Your task to perform on an android device: turn off location Image 0: 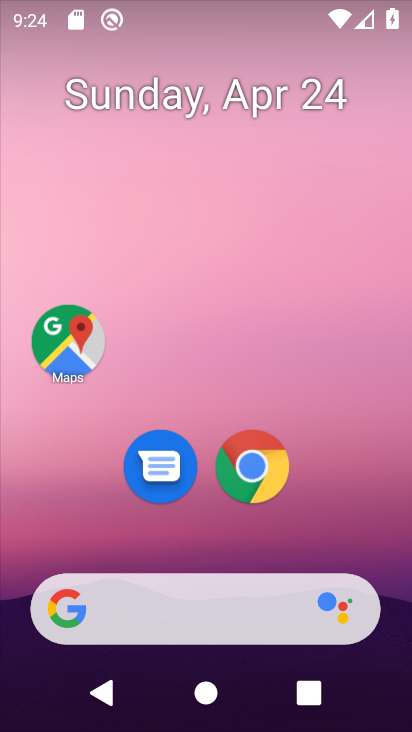
Step 0: drag from (361, 504) to (272, 23)
Your task to perform on an android device: turn off location Image 1: 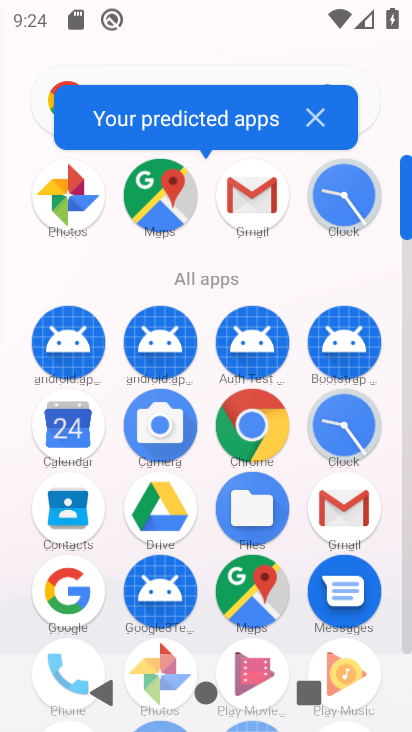
Step 1: drag from (207, 271) to (211, 3)
Your task to perform on an android device: turn off location Image 2: 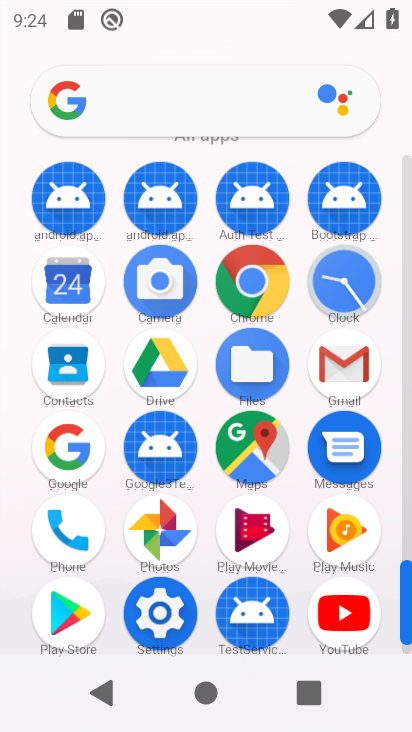
Step 2: click (177, 628)
Your task to perform on an android device: turn off location Image 3: 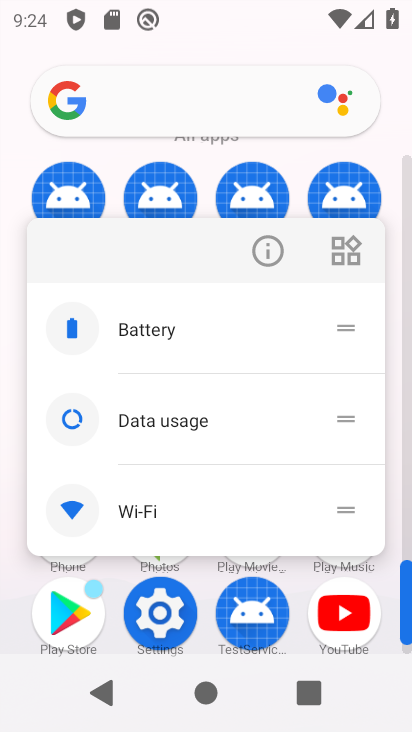
Step 3: click (188, 634)
Your task to perform on an android device: turn off location Image 4: 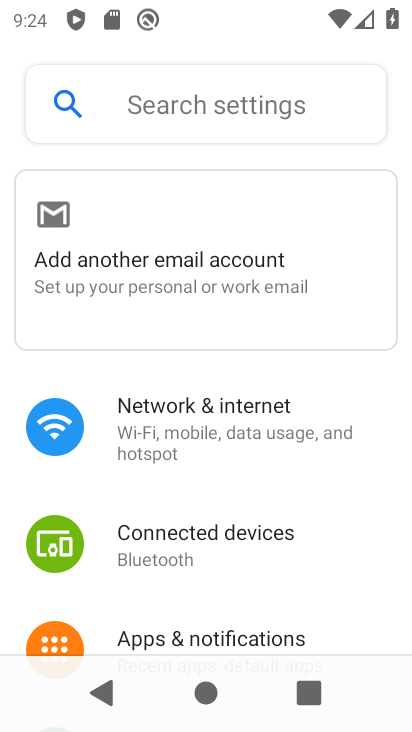
Step 4: drag from (298, 578) to (257, 172)
Your task to perform on an android device: turn off location Image 5: 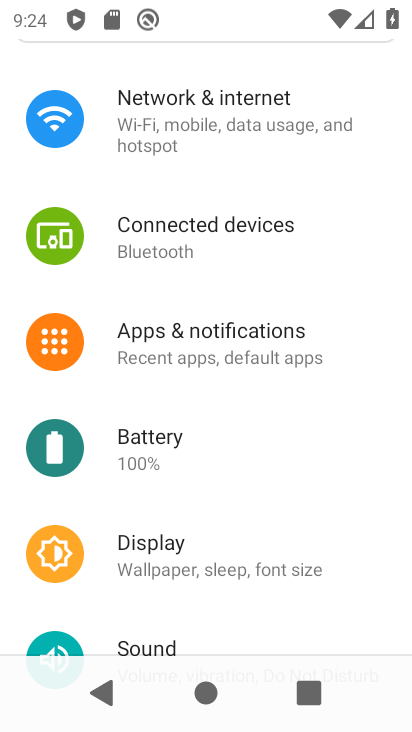
Step 5: drag from (259, 525) to (271, 157)
Your task to perform on an android device: turn off location Image 6: 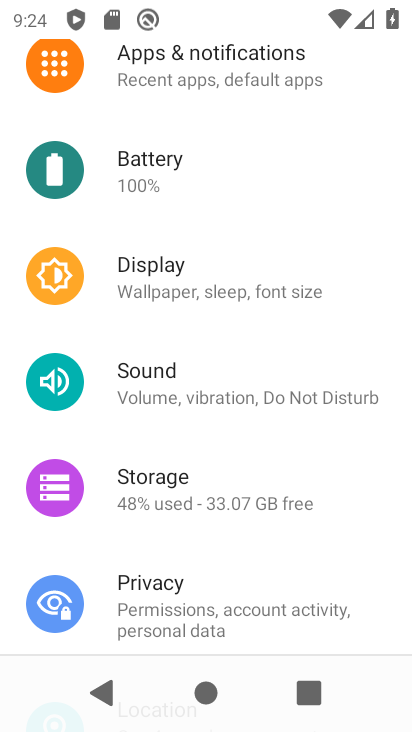
Step 6: drag from (232, 634) to (217, 126)
Your task to perform on an android device: turn off location Image 7: 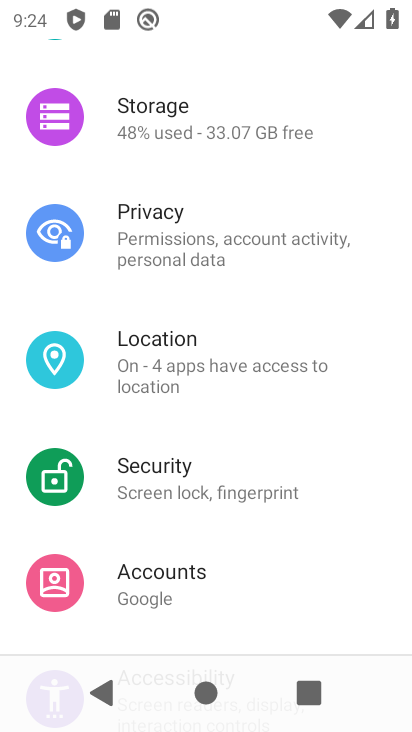
Step 7: click (178, 369)
Your task to perform on an android device: turn off location Image 8: 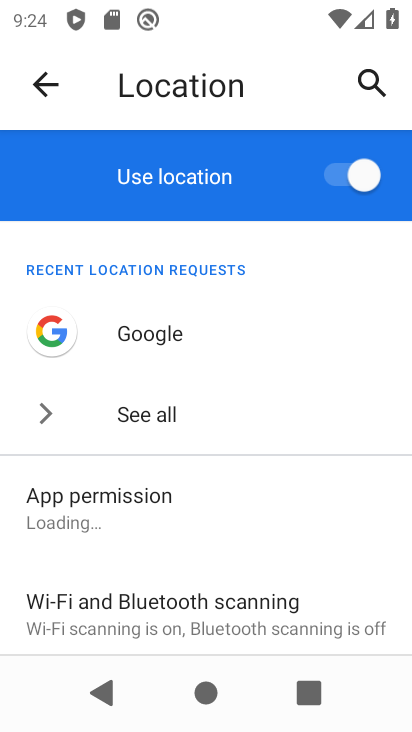
Step 8: click (347, 185)
Your task to perform on an android device: turn off location Image 9: 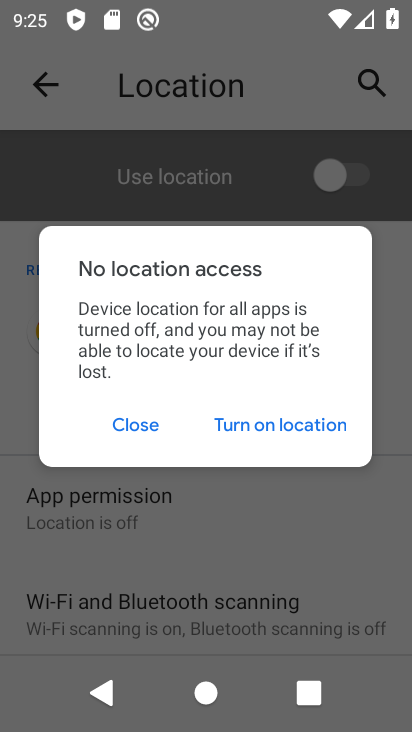
Step 9: task complete